Your task to perform on an android device: Search for Mexican restaurants on Maps Image 0: 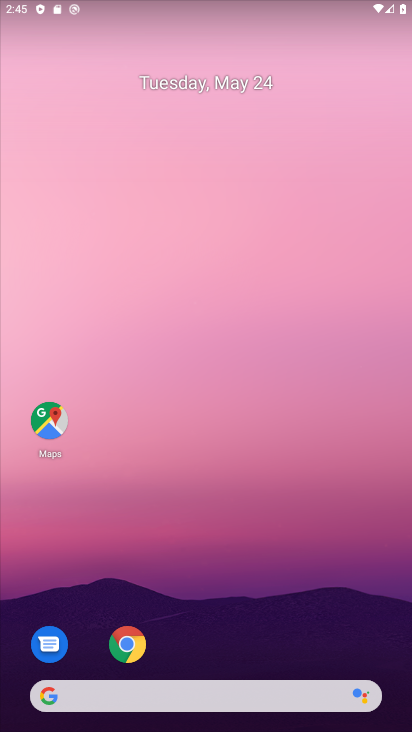
Step 0: drag from (378, 625) to (365, 284)
Your task to perform on an android device: Search for Mexican restaurants on Maps Image 1: 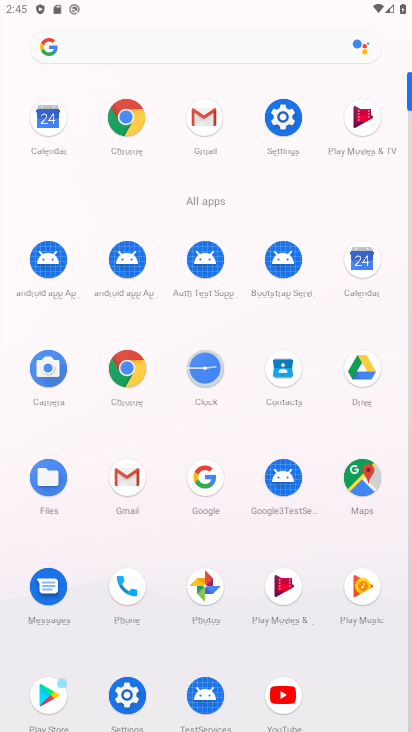
Step 1: click (355, 492)
Your task to perform on an android device: Search for Mexican restaurants on Maps Image 2: 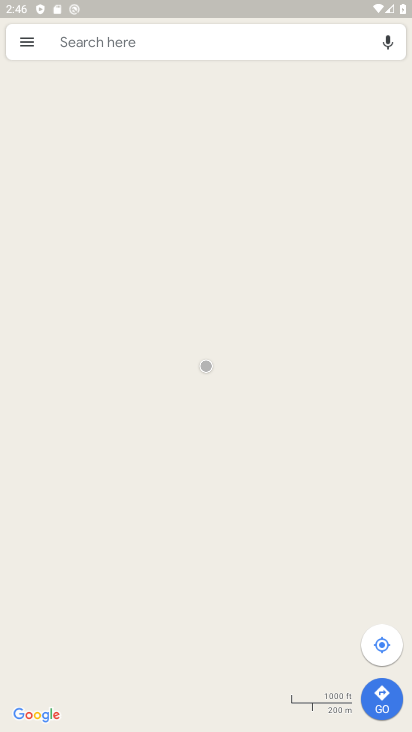
Step 2: click (198, 39)
Your task to perform on an android device: Search for Mexican restaurants on Maps Image 3: 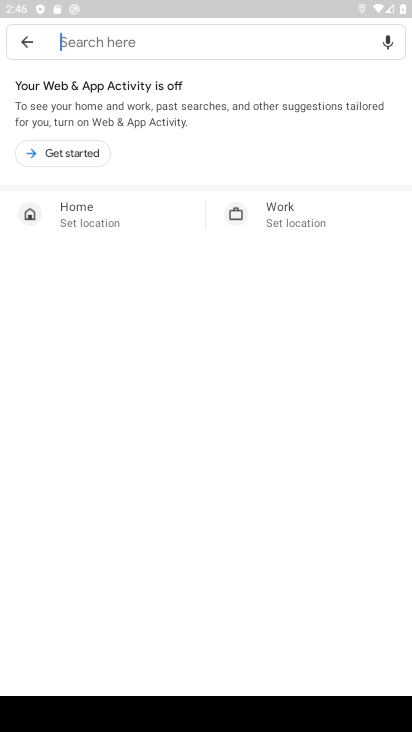
Step 3: type "mexican restaurants "
Your task to perform on an android device: Search for Mexican restaurants on Maps Image 4: 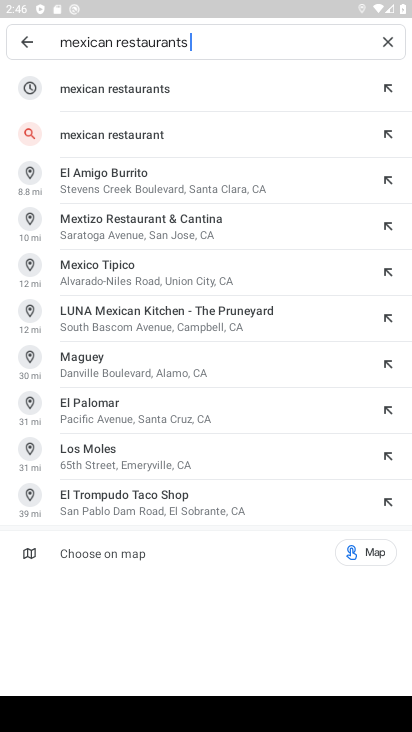
Step 4: click (158, 85)
Your task to perform on an android device: Search for Mexican restaurants on Maps Image 5: 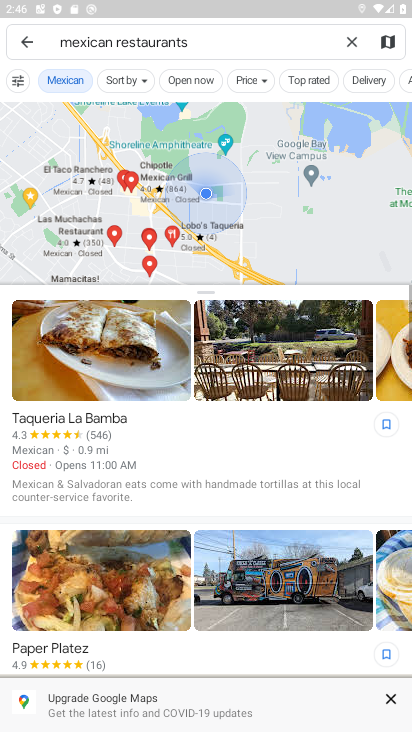
Step 5: task complete